Your task to perform on an android device: open the mobile data screen to see how much data has been used Image 0: 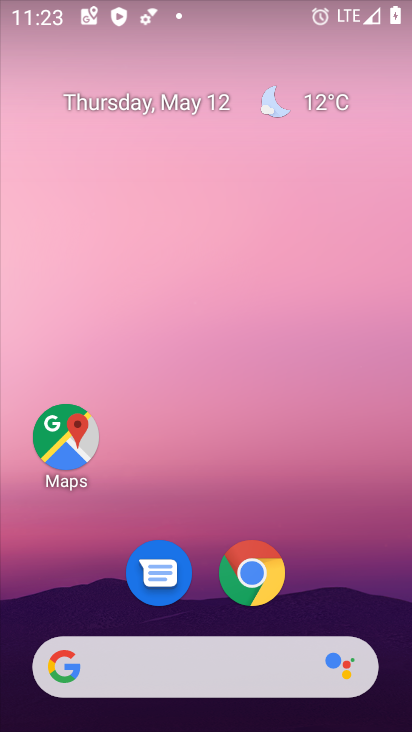
Step 0: drag from (253, 693) to (316, 128)
Your task to perform on an android device: open the mobile data screen to see how much data has been used Image 1: 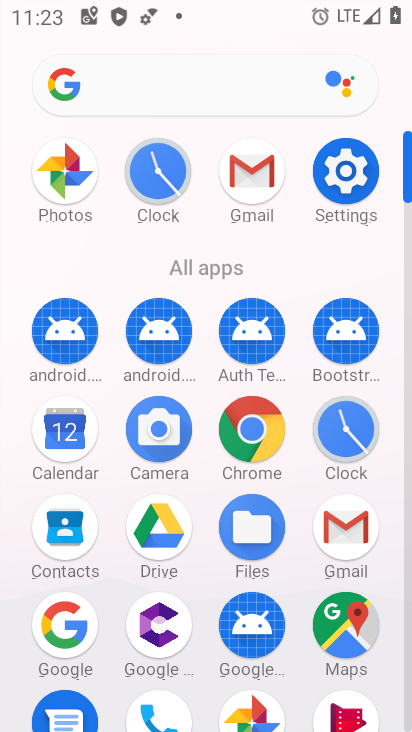
Step 1: click (340, 184)
Your task to perform on an android device: open the mobile data screen to see how much data has been used Image 2: 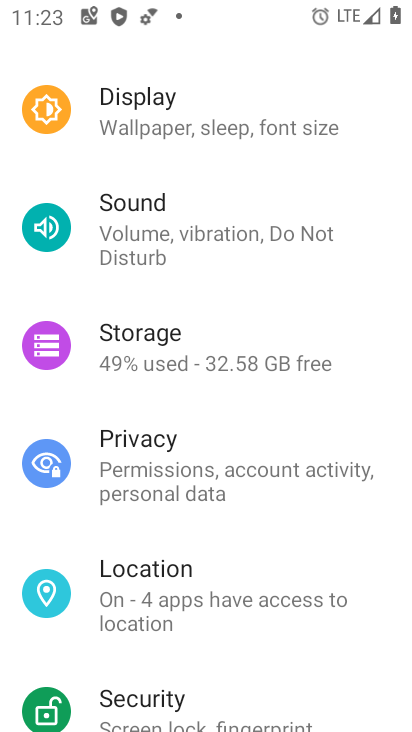
Step 2: drag from (211, 164) to (173, 646)
Your task to perform on an android device: open the mobile data screen to see how much data has been used Image 3: 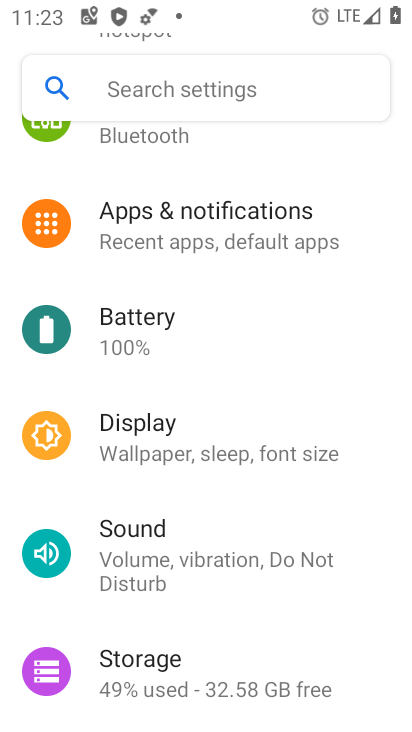
Step 3: drag from (225, 152) to (215, 469)
Your task to perform on an android device: open the mobile data screen to see how much data has been used Image 4: 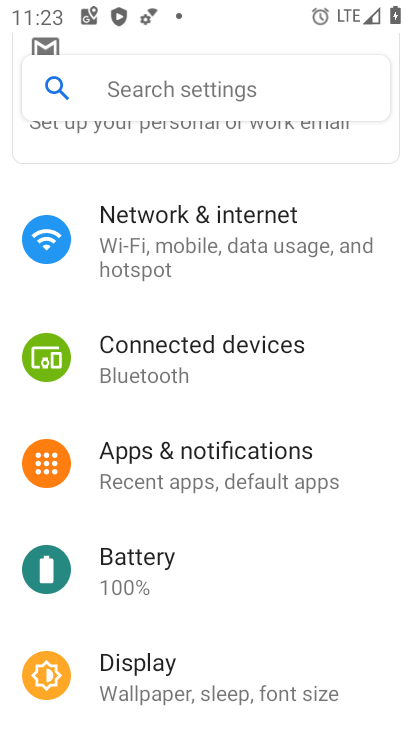
Step 4: click (239, 240)
Your task to perform on an android device: open the mobile data screen to see how much data has been used Image 5: 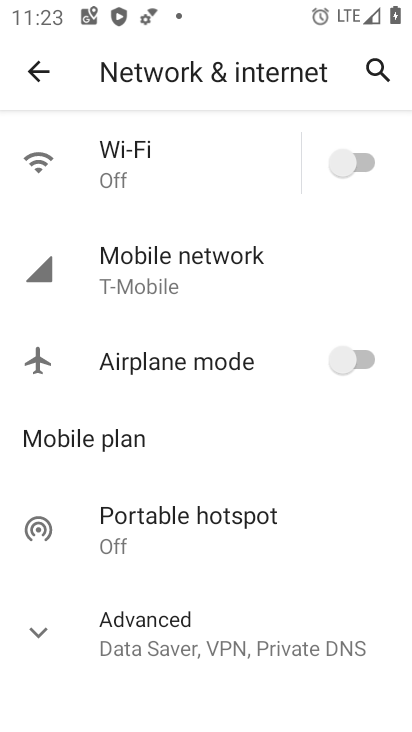
Step 5: click (183, 253)
Your task to perform on an android device: open the mobile data screen to see how much data has been used Image 6: 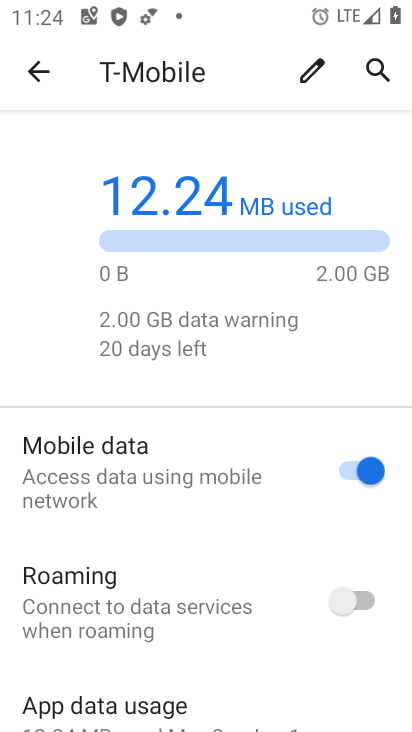
Step 6: task complete